Your task to perform on an android device: check out phone information Image 0: 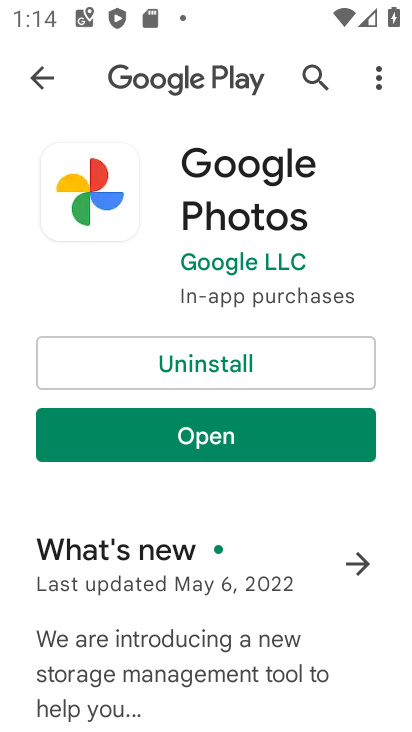
Step 0: press home button
Your task to perform on an android device: check out phone information Image 1: 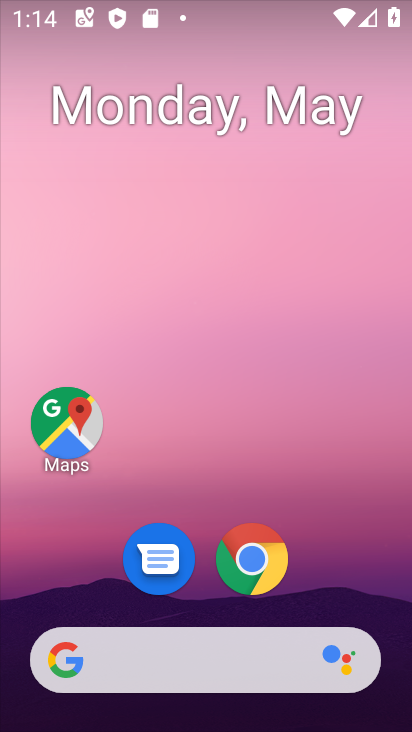
Step 1: drag from (240, 723) to (182, 162)
Your task to perform on an android device: check out phone information Image 2: 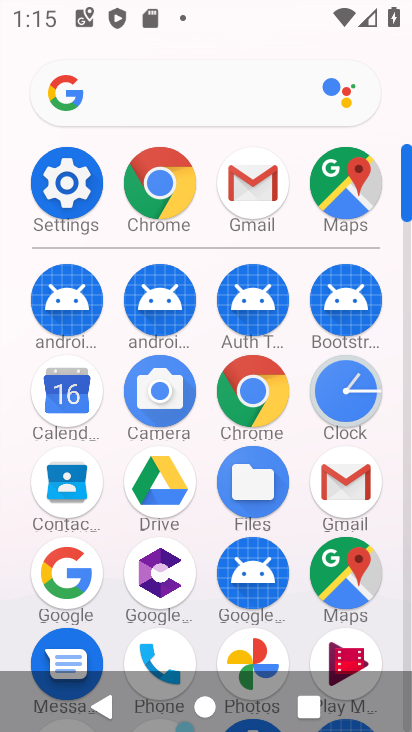
Step 2: drag from (195, 631) to (202, 166)
Your task to perform on an android device: check out phone information Image 3: 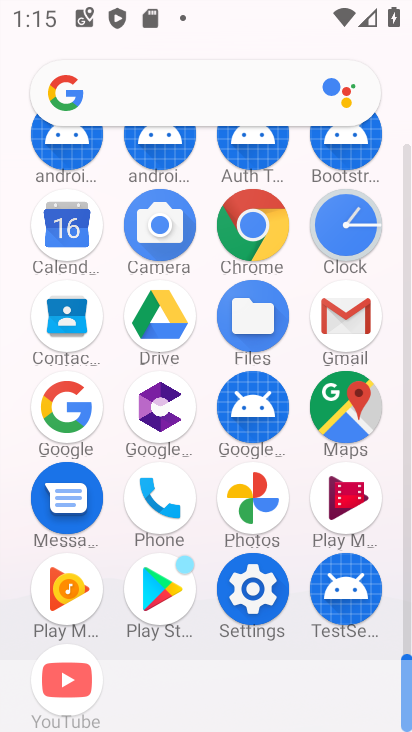
Step 3: click (267, 579)
Your task to perform on an android device: check out phone information Image 4: 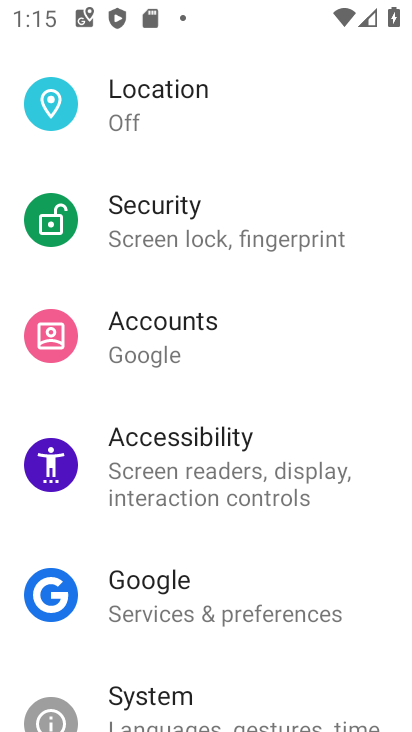
Step 4: drag from (284, 660) to (145, 76)
Your task to perform on an android device: check out phone information Image 5: 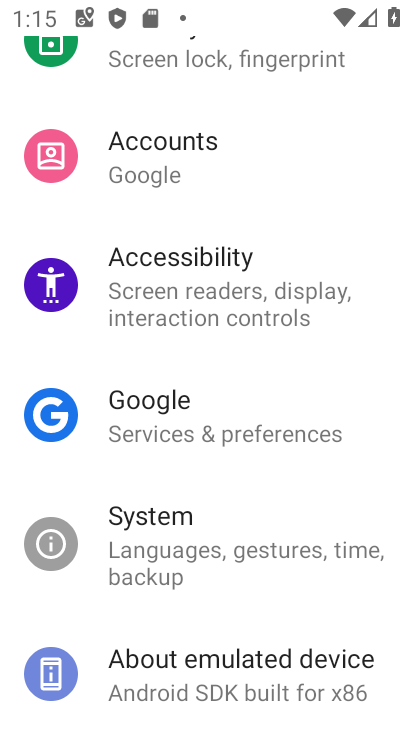
Step 5: drag from (216, 639) to (126, 76)
Your task to perform on an android device: check out phone information Image 6: 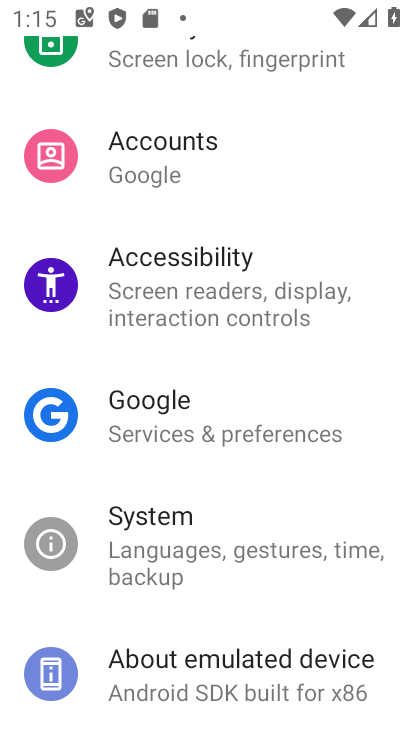
Step 6: click (190, 686)
Your task to perform on an android device: check out phone information Image 7: 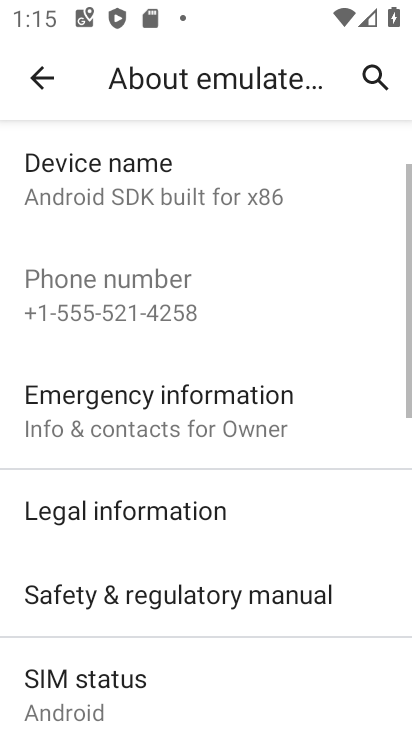
Step 7: task complete